Your task to perform on an android device: check android version Image 0: 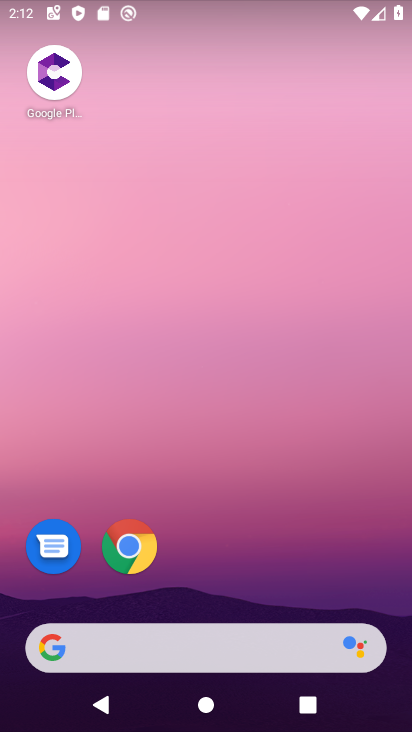
Step 0: drag from (213, 611) to (318, 30)
Your task to perform on an android device: check android version Image 1: 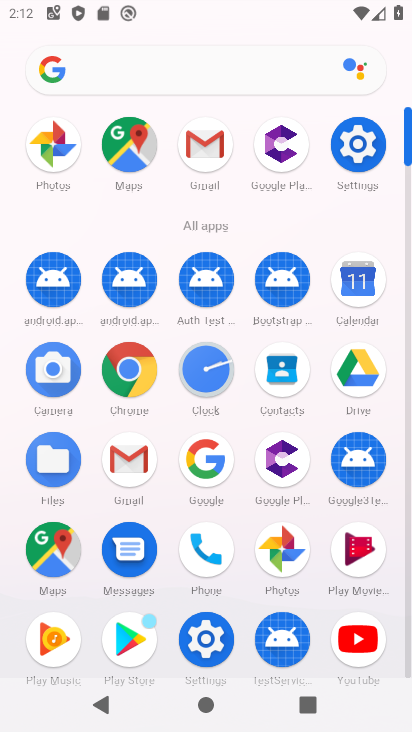
Step 1: click (359, 169)
Your task to perform on an android device: check android version Image 2: 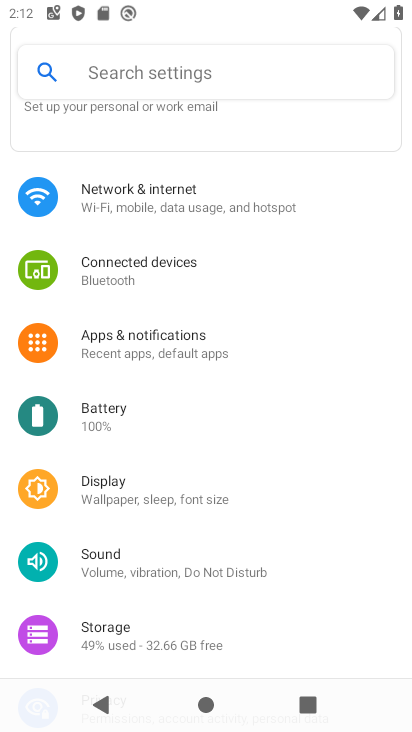
Step 2: drag from (159, 513) to (200, 145)
Your task to perform on an android device: check android version Image 3: 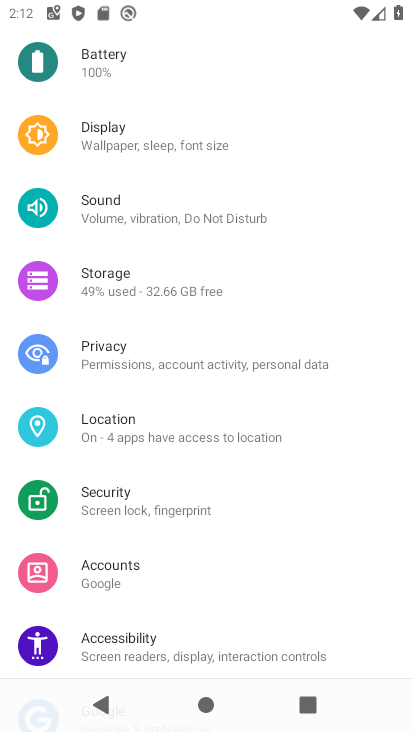
Step 3: drag from (133, 565) to (226, 123)
Your task to perform on an android device: check android version Image 4: 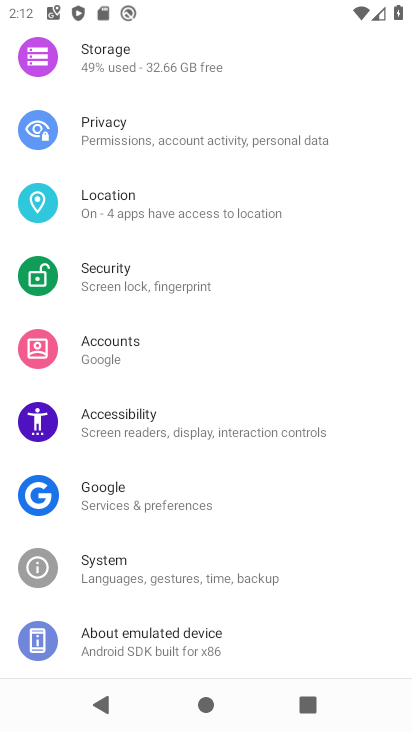
Step 4: click (124, 646)
Your task to perform on an android device: check android version Image 5: 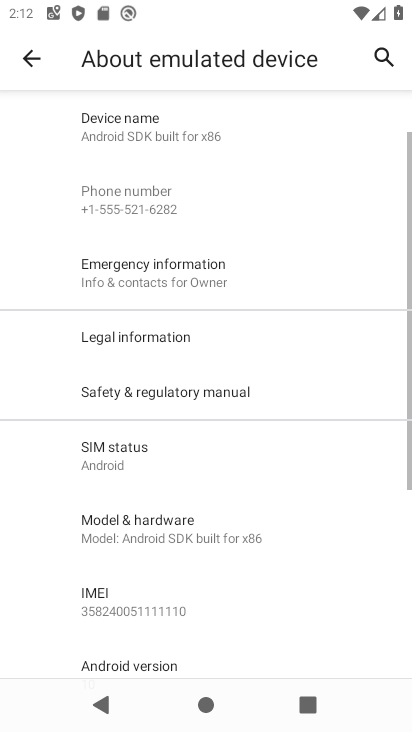
Step 5: drag from (170, 335) to (207, 196)
Your task to perform on an android device: check android version Image 6: 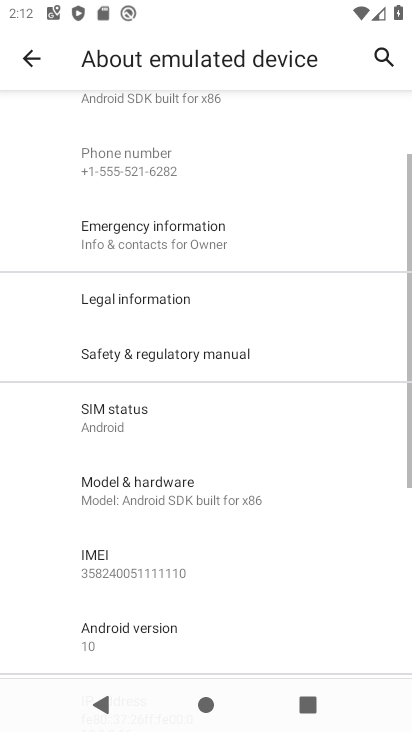
Step 6: drag from (156, 620) to (170, 401)
Your task to perform on an android device: check android version Image 7: 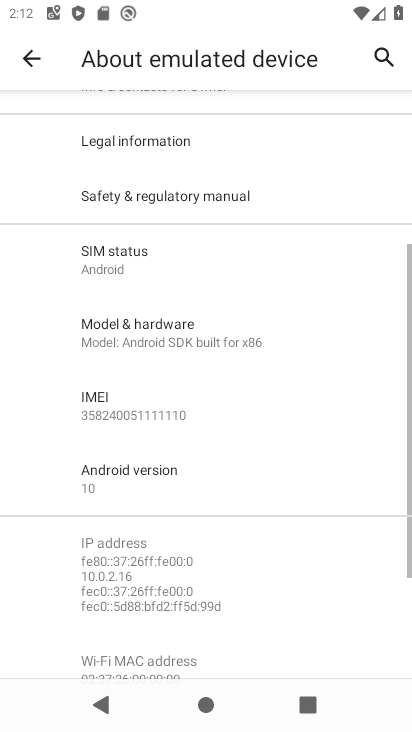
Step 7: click (143, 461)
Your task to perform on an android device: check android version Image 8: 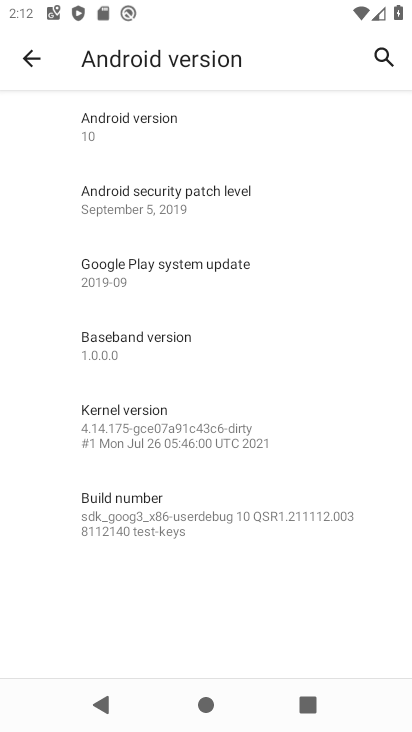
Step 8: task complete